Your task to perform on an android device: Open the stopwatch Image 0: 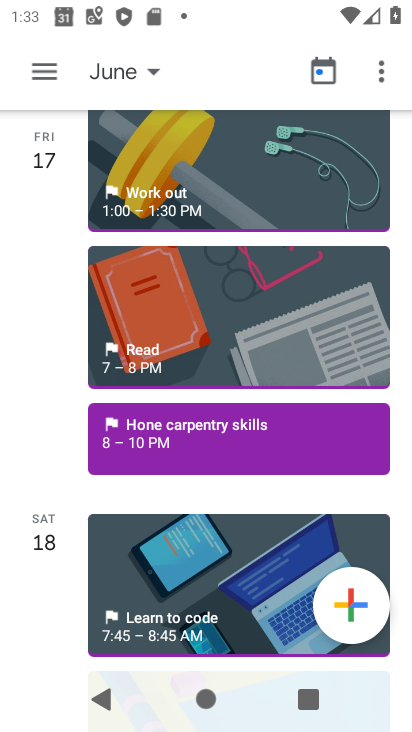
Step 0: press home button
Your task to perform on an android device: Open the stopwatch Image 1: 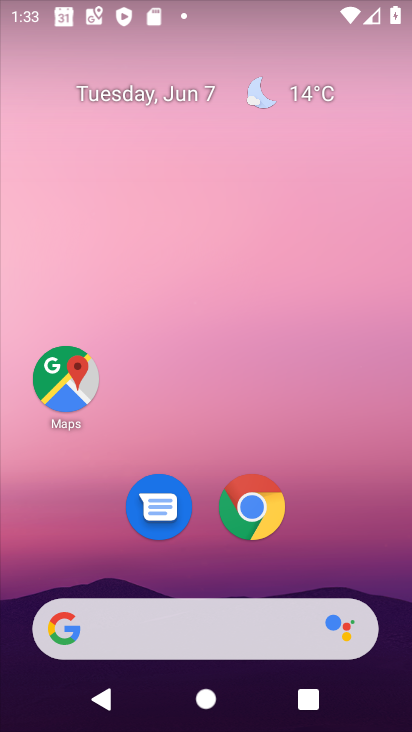
Step 1: drag from (398, 610) to (308, 76)
Your task to perform on an android device: Open the stopwatch Image 2: 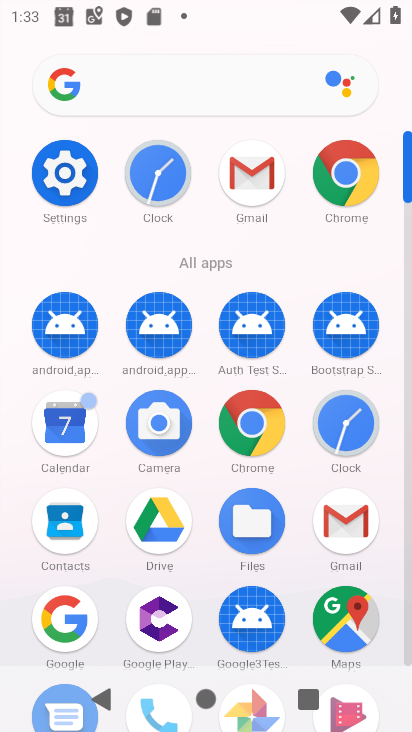
Step 2: click (346, 423)
Your task to perform on an android device: Open the stopwatch Image 3: 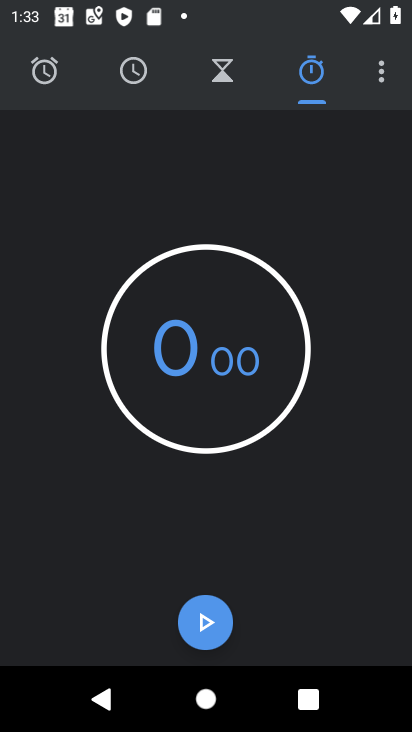
Step 3: task complete